Your task to perform on an android device: Go to wifi settings Image 0: 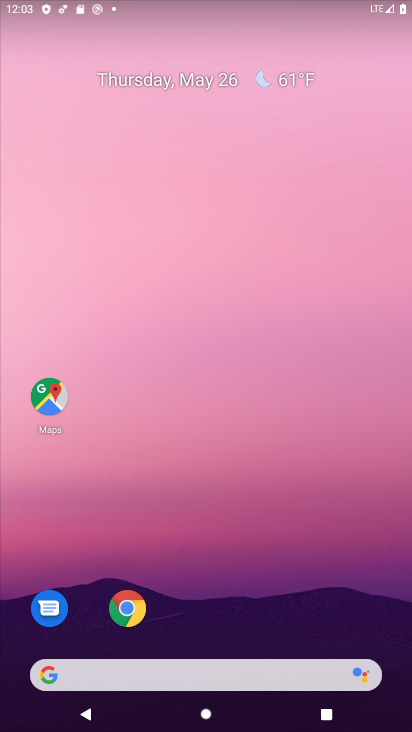
Step 0: drag from (390, 611) to (301, 87)
Your task to perform on an android device: Go to wifi settings Image 1: 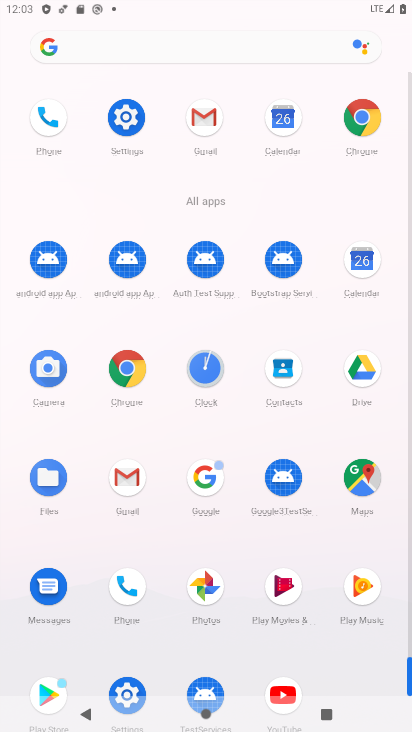
Step 1: click (123, 687)
Your task to perform on an android device: Go to wifi settings Image 2: 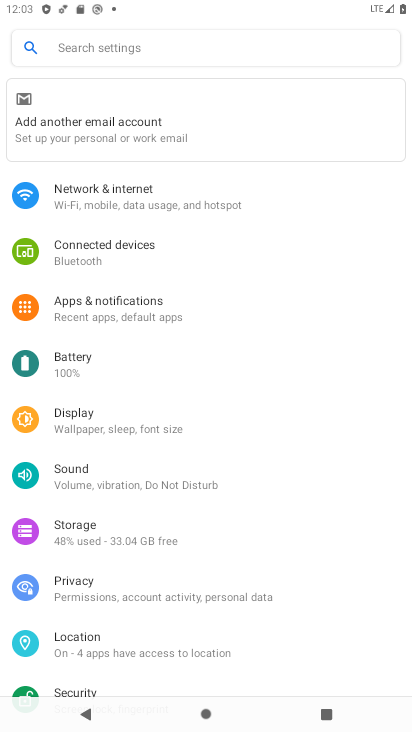
Step 2: click (76, 178)
Your task to perform on an android device: Go to wifi settings Image 3: 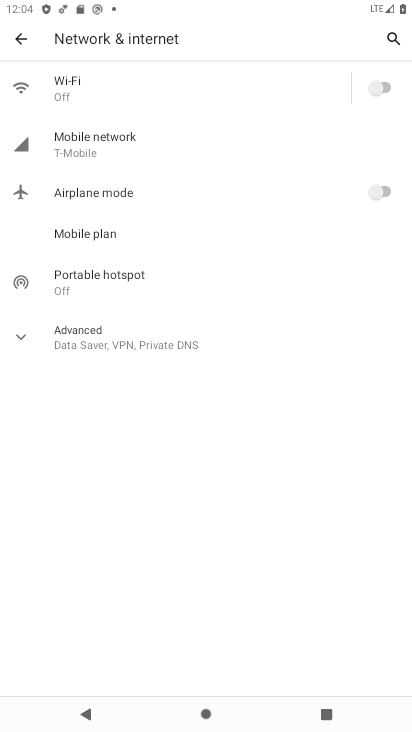
Step 3: click (59, 76)
Your task to perform on an android device: Go to wifi settings Image 4: 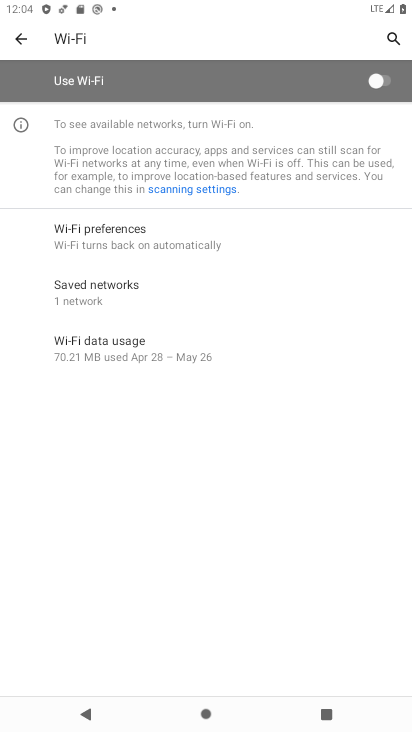
Step 4: task complete